Your task to perform on an android device: Go to Amazon Image 0: 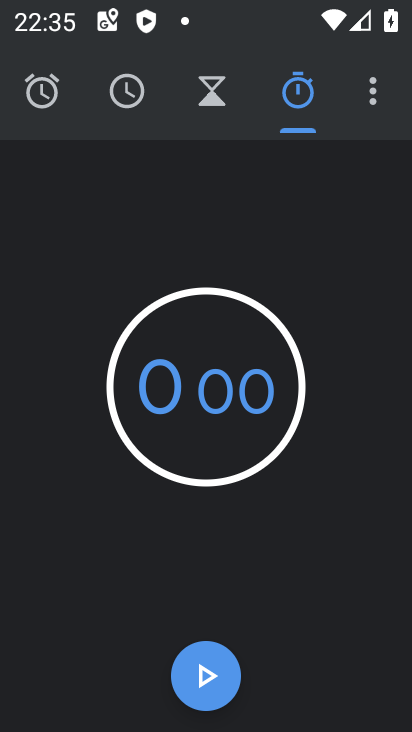
Step 0: press home button
Your task to perform on an android device: Go to Amazon Image 1: 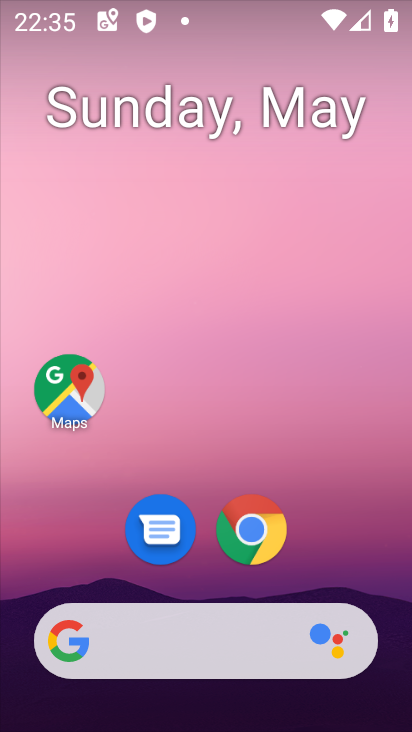
Step 1: click (270, 545)
Your task to perform on an android device: Go to Amazon Image 2: 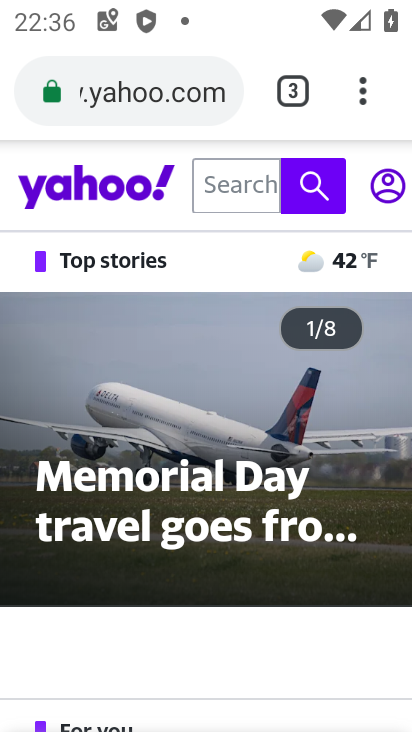
Step 2: click (190, 96)
Your task to perform on an android device: Go to Amazon Image 3: 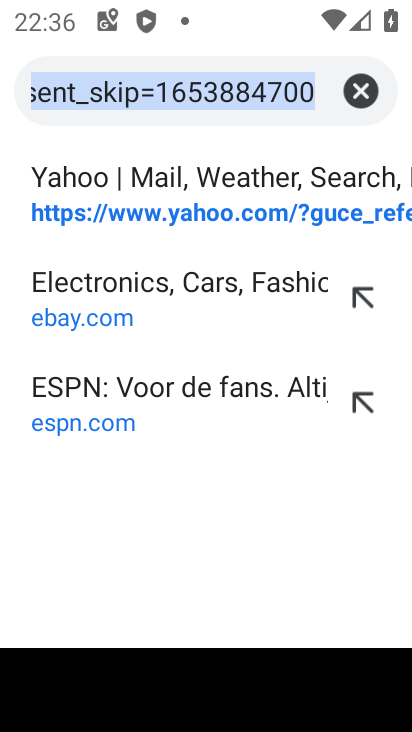
Step 3: type "amazon"
Your task to perform on an android device: Go to Amazon Image 4: 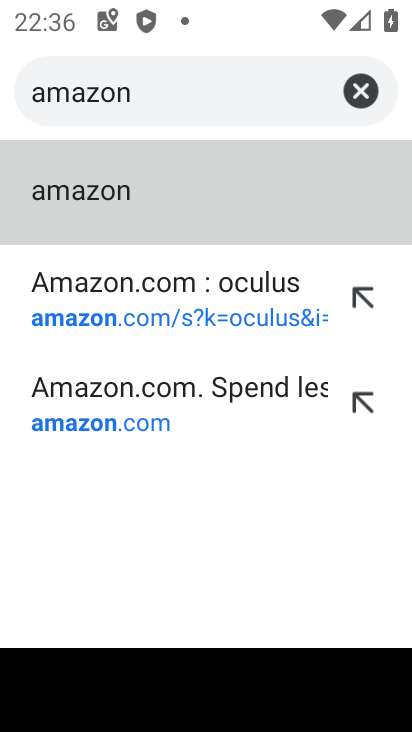
Step 4: click (114, 216)
Your task to perform on an android device: Go to Amazon Image 5: 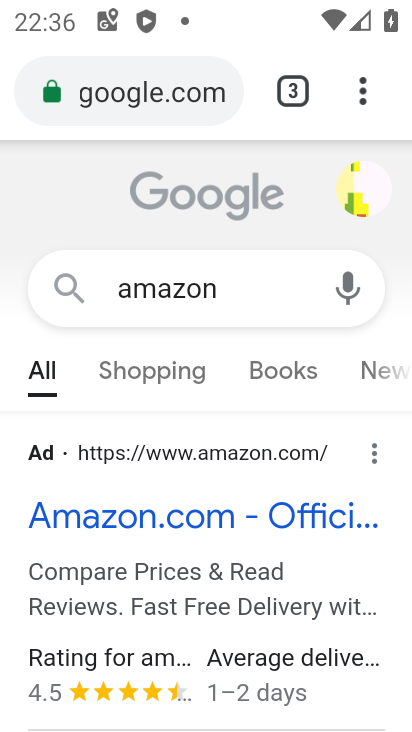
Step 5: click (145, 504)
Your task to perform on an android device: Go to Amazon Image 6: 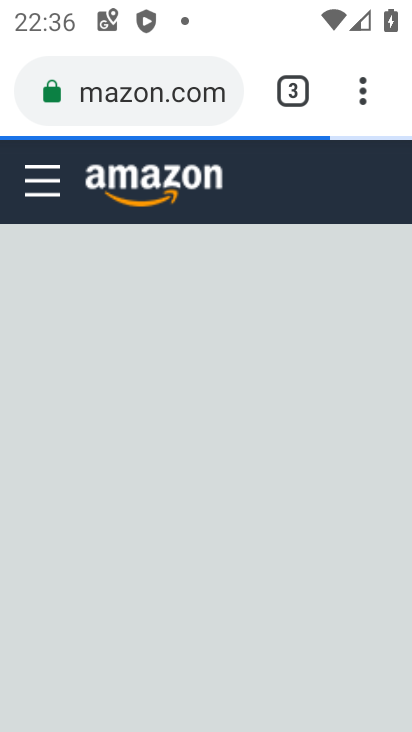
Step 6: task complete